Your task to perform on an android device: turn off translation in the chrome app Image 0: 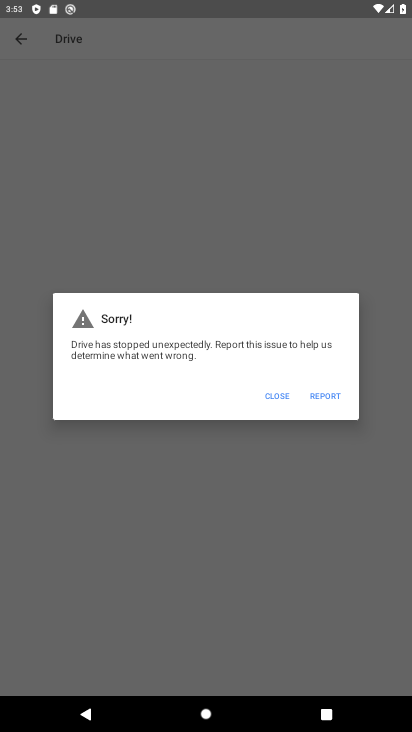
Step 0: press home button
Your task to perform on an android device: turn off translation in the chrome app Image 1: 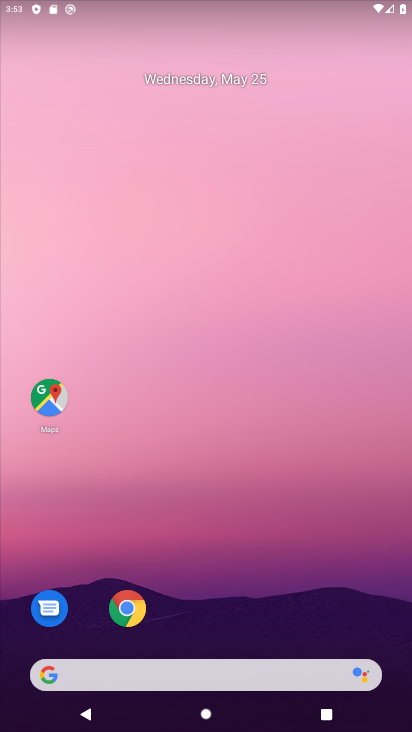
Step 1: click (125, 608)
Your task to perform on an android device: turn off translation in the chrome app Image 2: 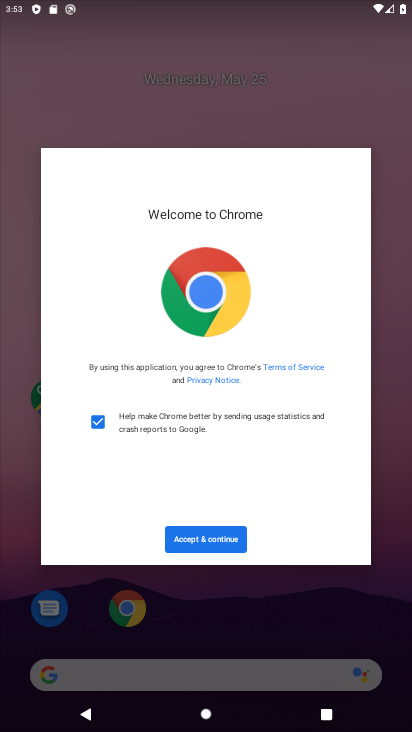
Step 2: click (194, 533)
Your task to perform on an android device: turn off translation in the chrome app Image 3: 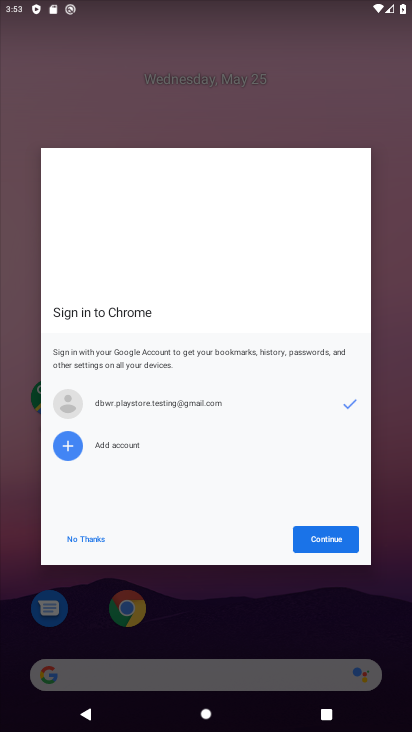
Step 3: click (320, 539)
Your task to perform on an android device: turn off translation in the chrome app Image 4: 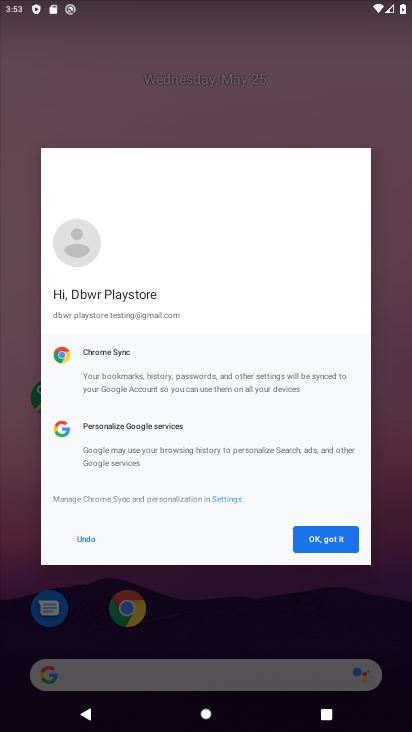
Step 4: click (320, 539)
Your task to perform on an android device: turn off translation in the chrome app Image 5: 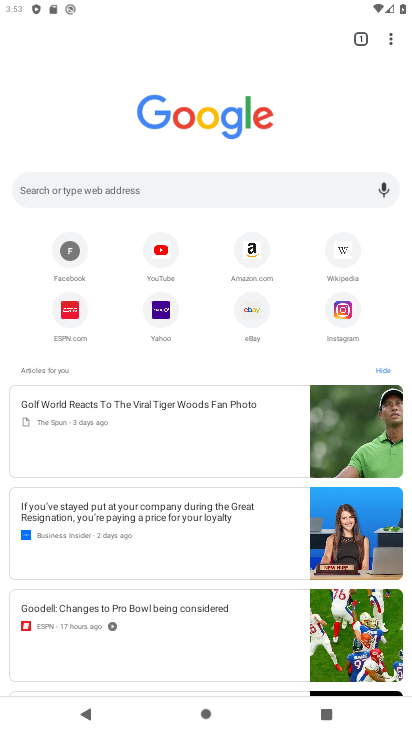
Step 5: click (390, 38)
Your task to perform on an android device: turn off translation in the chrome app Image 6: 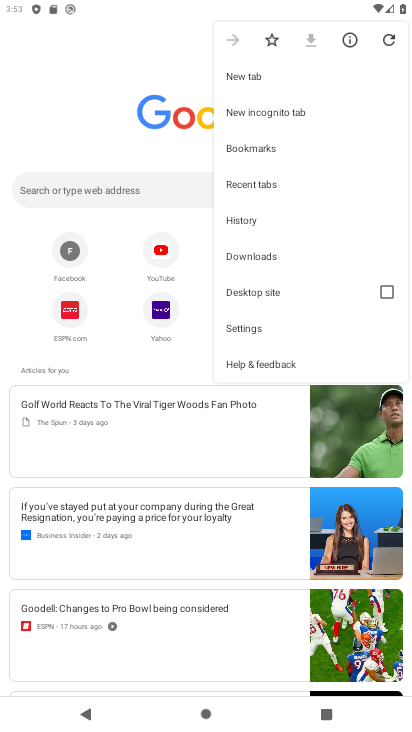
Step 6: click (241, 327)
Your task to perform on an android device: turn off translation in the chrome app Image 7: 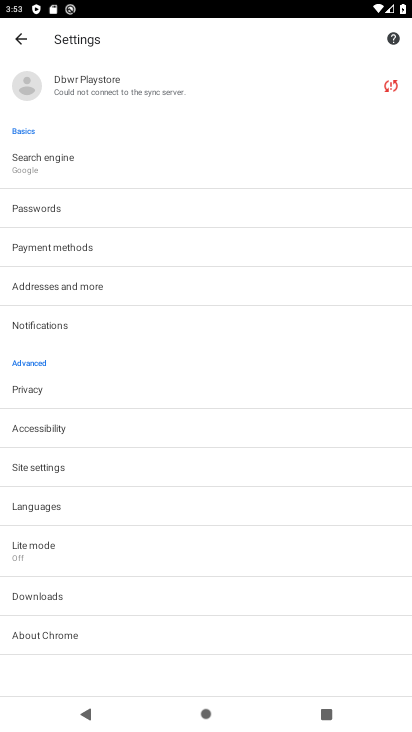
Step 7: click (30, 503)
Your task to perform on an android device: turn off translation in the chrome app Image 8: 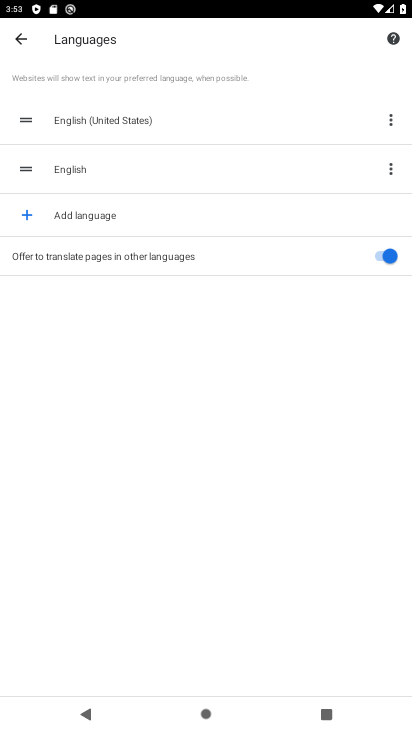
Step 8: click (383, 254)
Your task to perform on an android device: turn off translation in the chrome app Image 9: 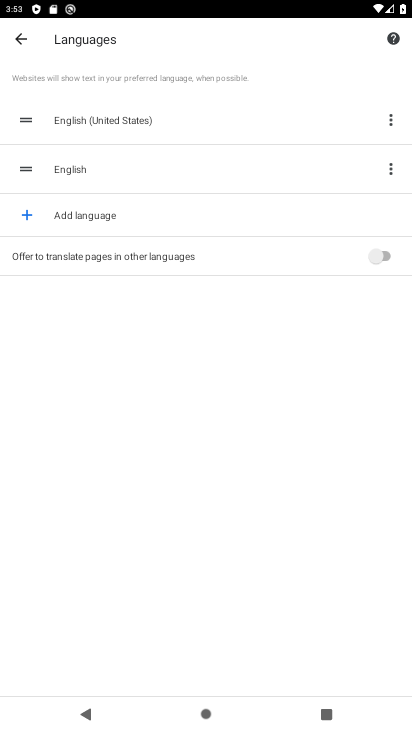
Step 9: task complete